Your task to perform on an android device: toggle translation in the chrome app Image 0: 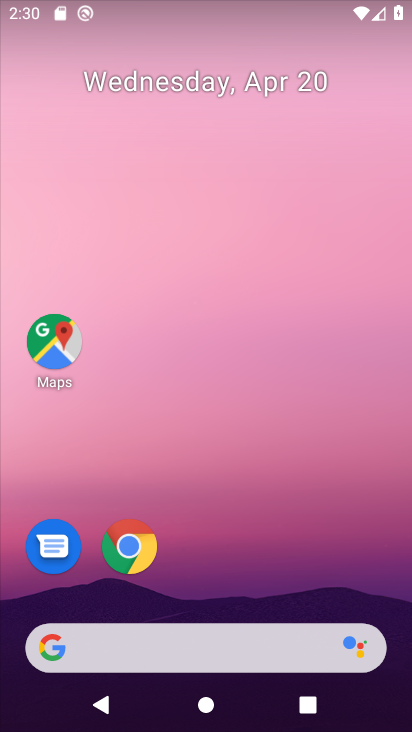
Step 0: drag from (189, 472) to (208, 240)
Your task to perform on an android device: toggle translation in the chrome app Image 1: 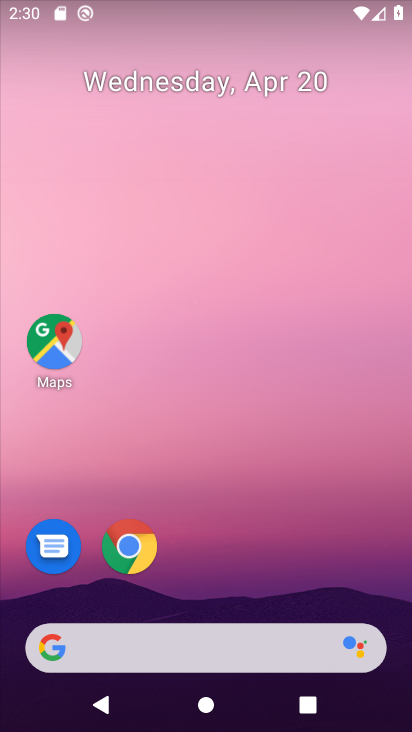
Step 1: drag from (159, 614) to (271, 201)
Your task to perform on an android device: toggle translation in the chrome app Image 2: 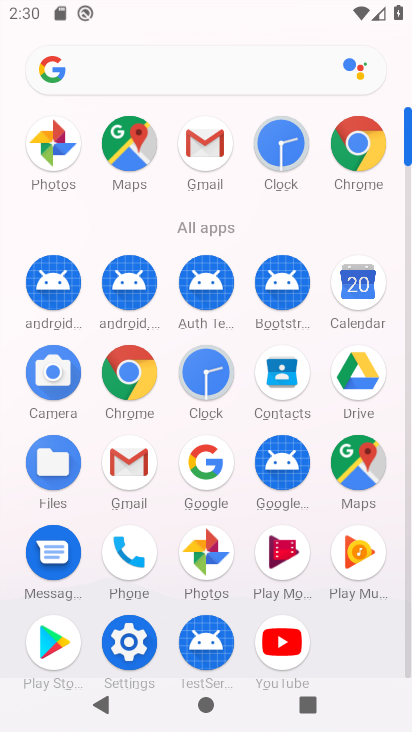
Step 2: click (354, 151)
Your task to perform on an android device: toggle translation in the chrome app Image 3: 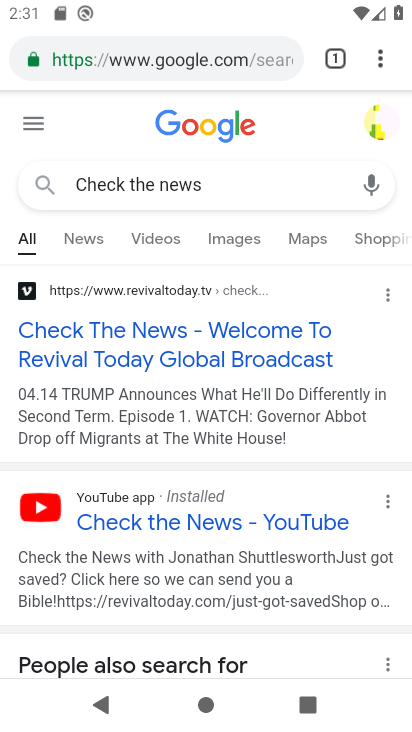
Step 3: click (384, 54)
Your task to perform on an android device: toggle translation in the chrome app Image 4: 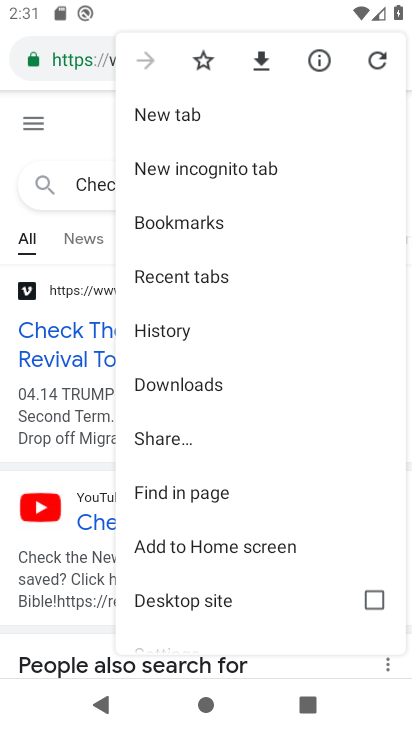
Step 4: drag from (218, 489) to (277, 180)
Your task to perform on an android device: toggle translation in the chrome app Image 5: 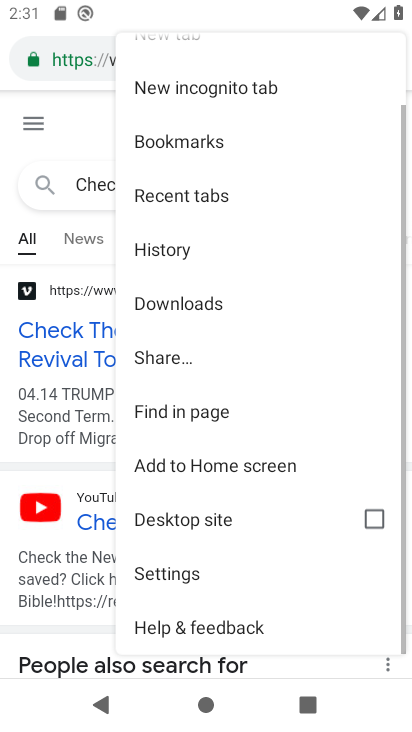
Step 5: click (170, 576)
Your task to perform on an android device: toggle translation in the chrome app Image 6: 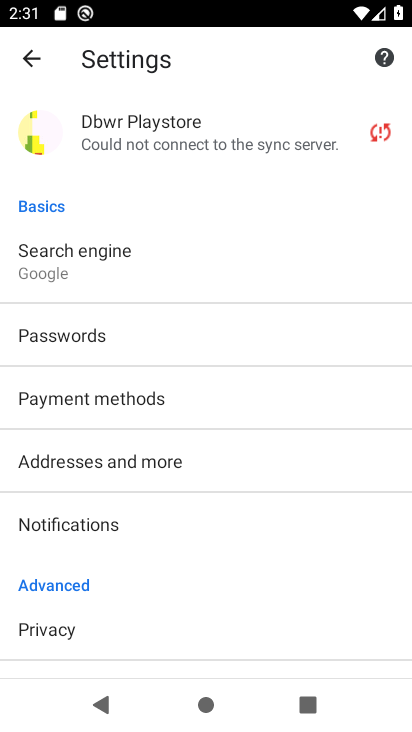
Step 6: drag from (121, 627) to (272, 201)
Your task to perform on an android device: toggle translation in the chrome app Image 7: 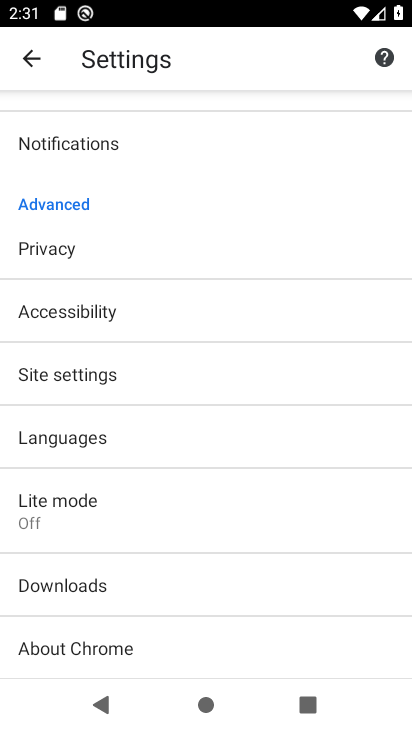
Step 7: click (108, 432)
Your task to perform on an android device: toggle translation in the chrome app Image 8: 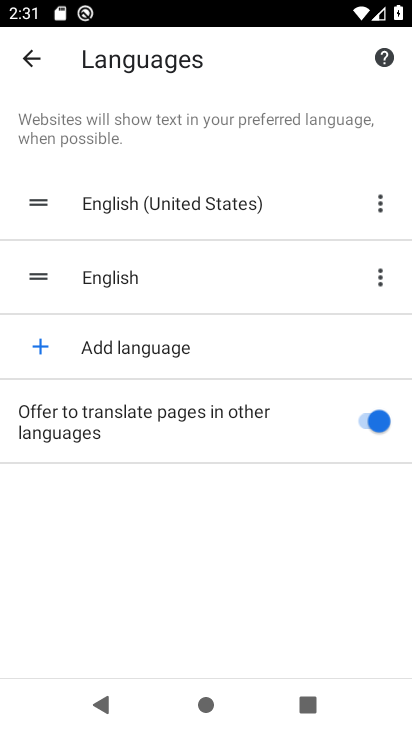
Step 8: click (371, 419)
Your task to perform on an android device: toggle translation in the chrome app Image 9: 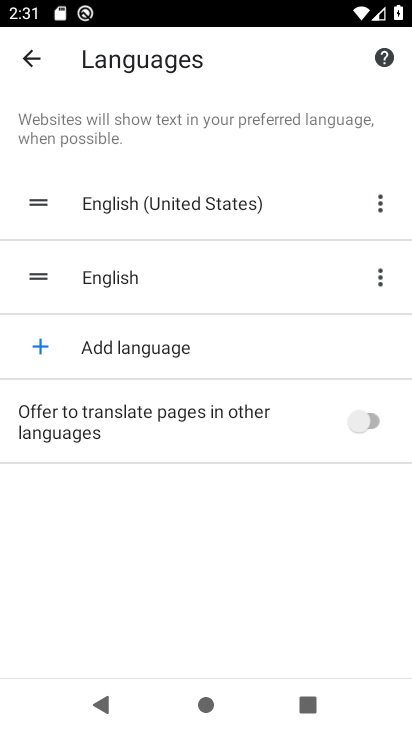
Step 9: task complete